Your task to perform on an android device: Show me recent news Image 0: 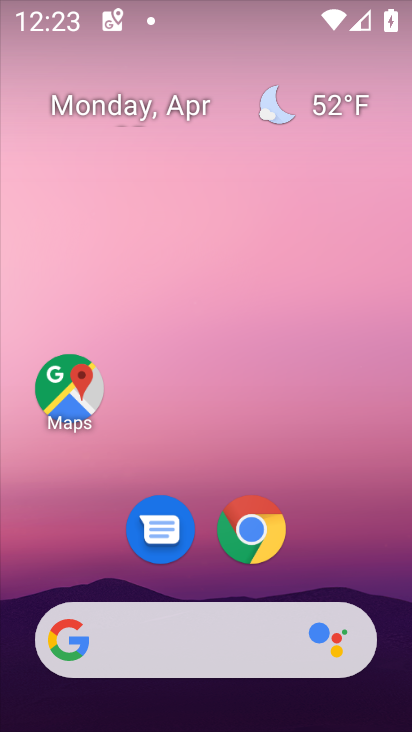
Step 0: click (338, 168)
Your task to perform on an android device: Show me recent news Image 1: 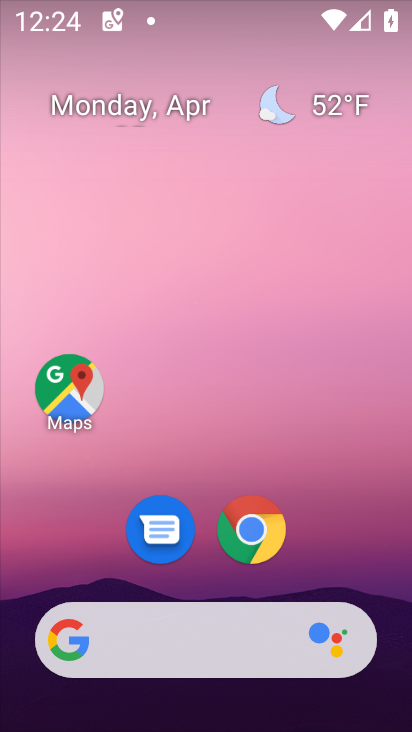
Step 1: drag from (392, 615) to (343, 303)
Your task to perform on an android device: Show me recent news Image 2: 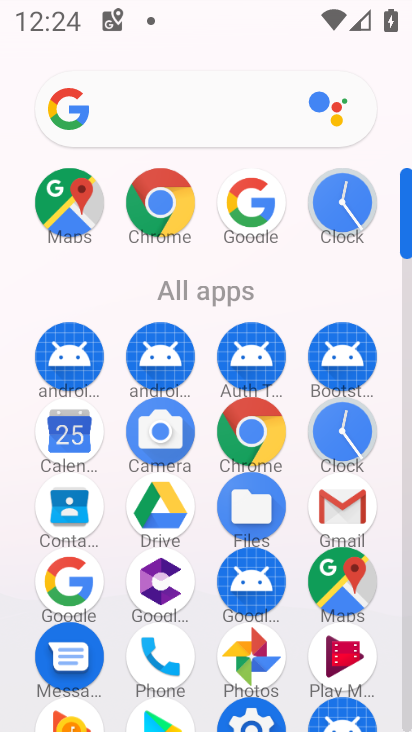
Step 2: click (75, 578)
Your task to perform on an android device: Show me recent news Image 3: 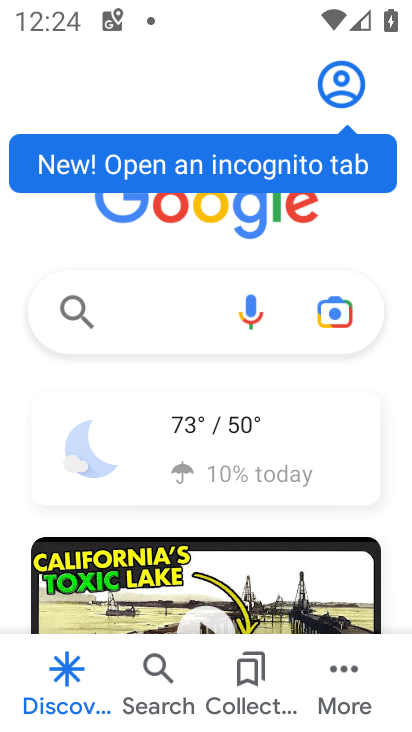
Step 3: task complete